Your task to perform on an android device: Search for Mexican restaurants on Maps Image 0: 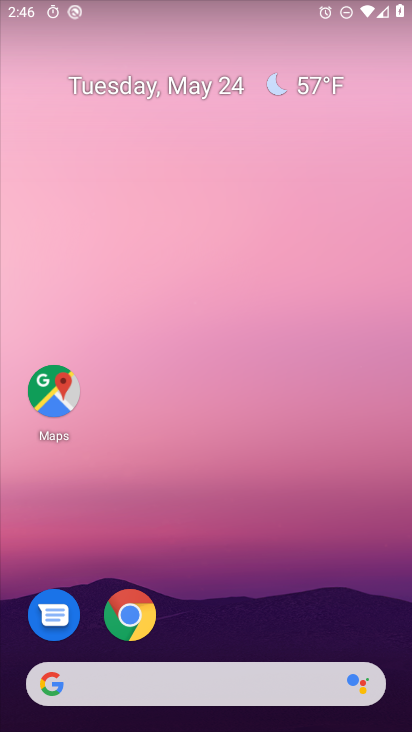
Step 0: click (56, 387)
Your task to perform on an android device: Search for Mexican restaurants on Maps Image 1: 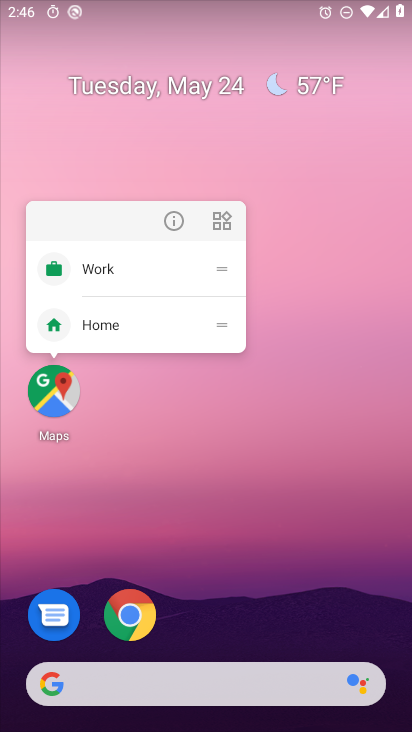
Step 1: click (57, 395)
Your task to perform on an android device: Search for Mexican restaurants on Maps Image 2: 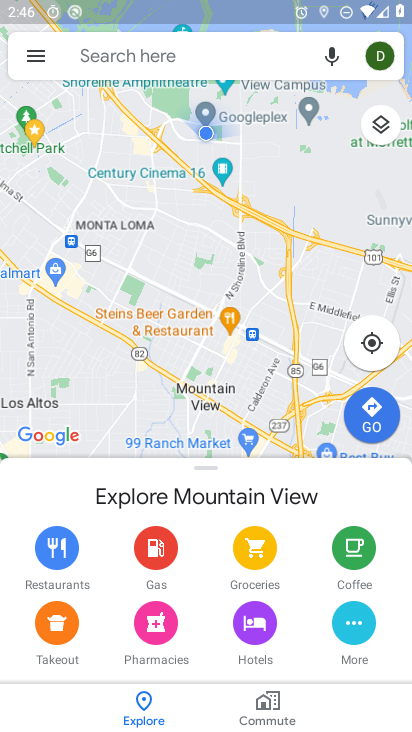
Step 2: click (182, 47)
Your task to perform on an android device: Search for Mexican restaurants on Maps Image 3: 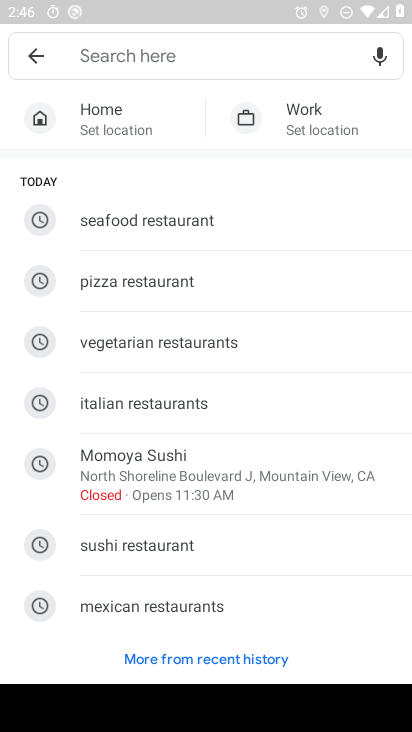
Step 3: click (131, 612)
Your task to perform on an android device: Search for Mexican restaurants on Maps Image 4: 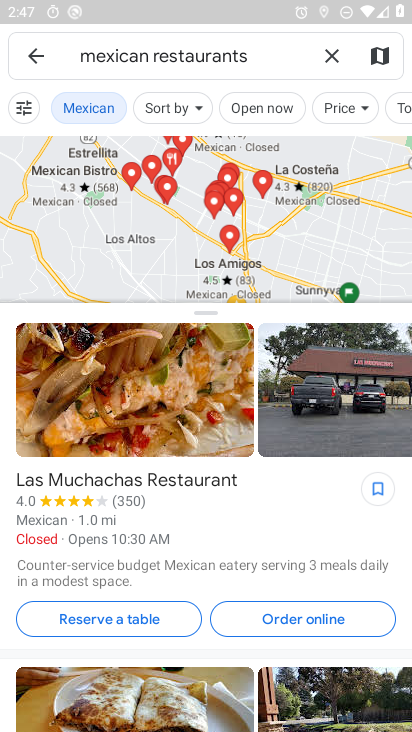
Step 4: task complete